Your task to perform on an android device: open a bookmark in the chrome app Image 0: 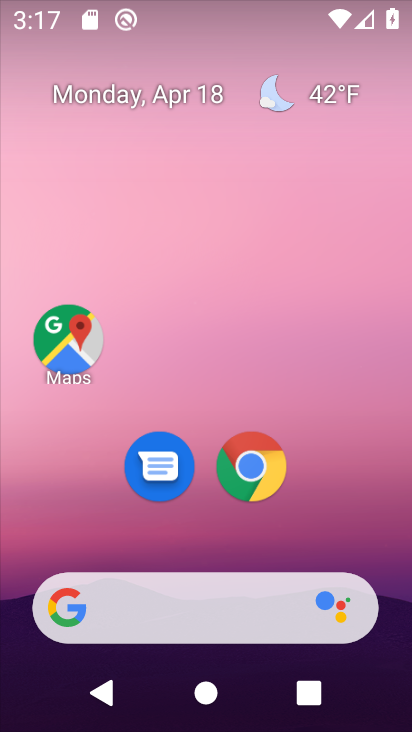
Step 0: click (265, 485)
Your task to perform on an android device: open a bookmark in the chrome app Image 1: 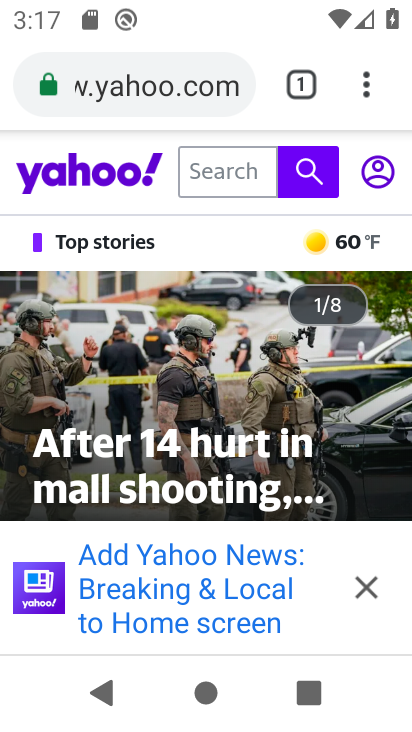
Step 1: drag from (368, 72) to (277, 329)
Your task to perform on an android device: open a bookmark in the chrome app Image 2: 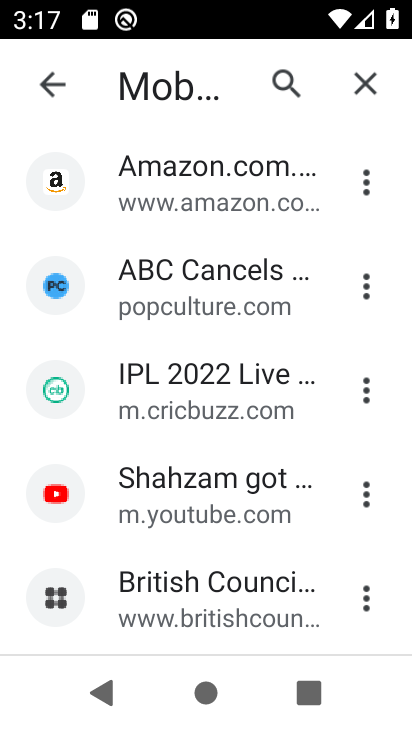
Step 2: click (188, 281)
Your task to perform on an android device: open a bookmark in the chrome app Image 3: 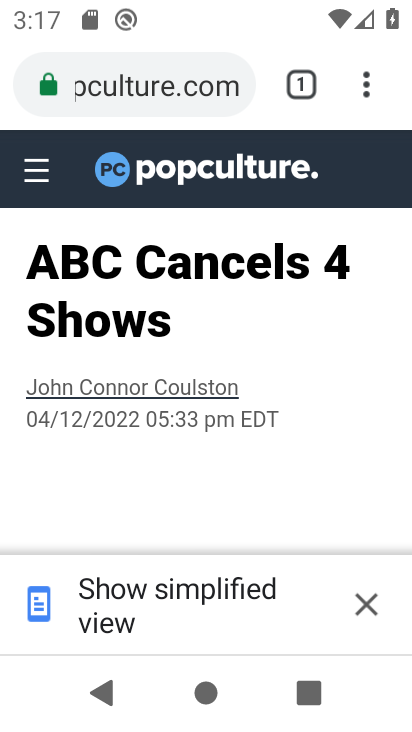
Step 3: task complete